Your task to perform on an android device: Go to wifi settings Image 0: 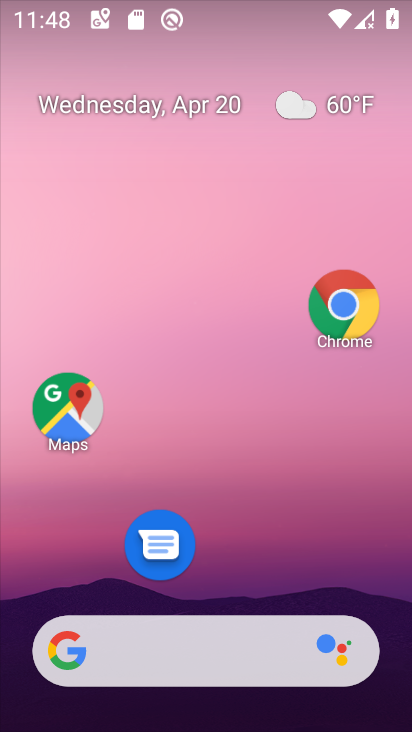
Step 0: drag from (192, 639) to (248, 4)
Your task to perform on an android device: Go to wifi settings Image 1: 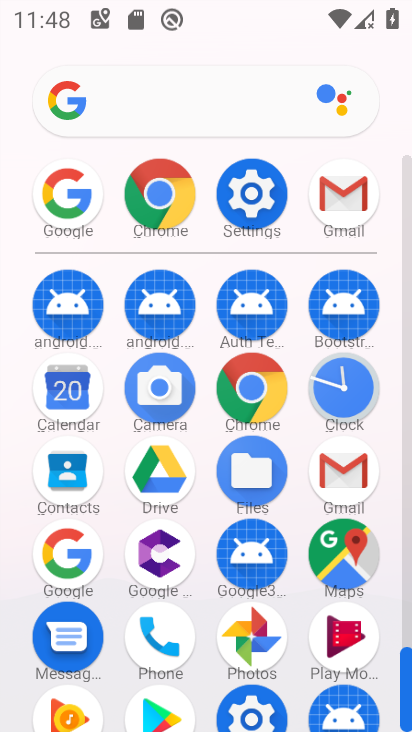
Step 1: click (250, 198)
Your task to perform on an android device: Go to wifi settings Image 2: 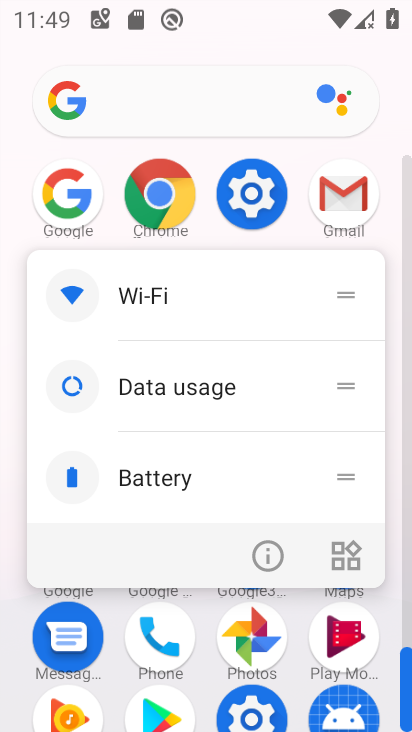
Step 2: click (246, 207)
Your task to perform on an android device: Go to wifi settings Image 3: 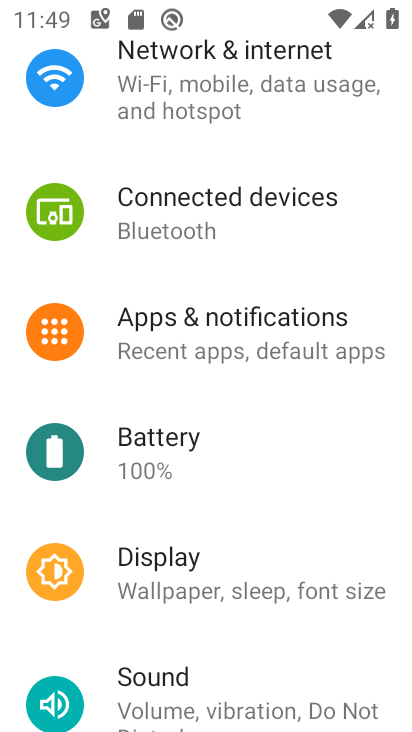
Step 3: drag from (233, 261) to (161, 657)
Your task to perform on an android device: Go to wifi settings Image 4: 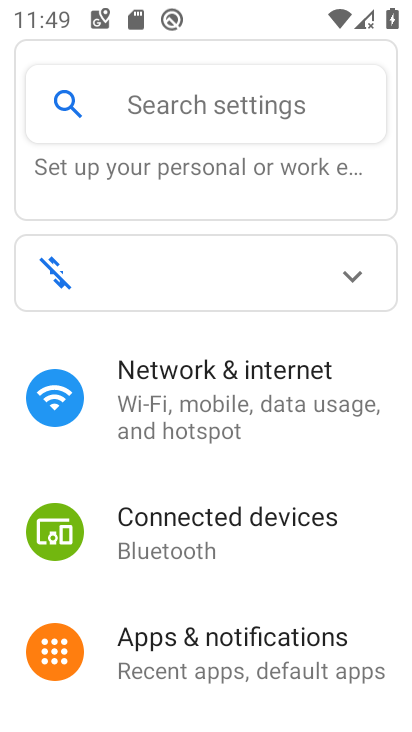
Step 4: click (238, 408)
Your task to perform on an android device: Go to wifi settings Image 5: 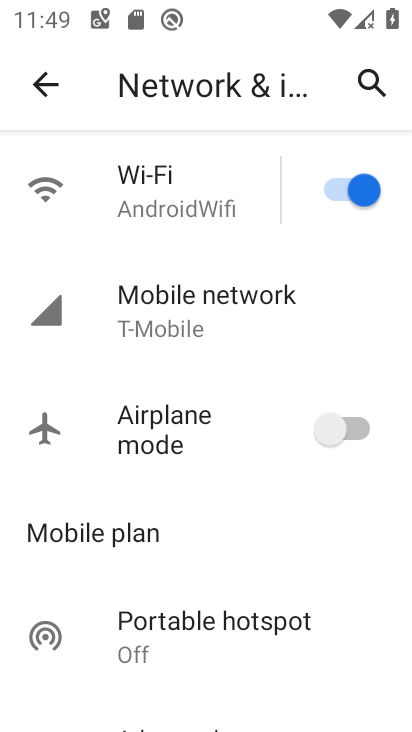
Step 5: click (169, 197)
Your task to perform on an android device: Go to wifi settings Image 6: 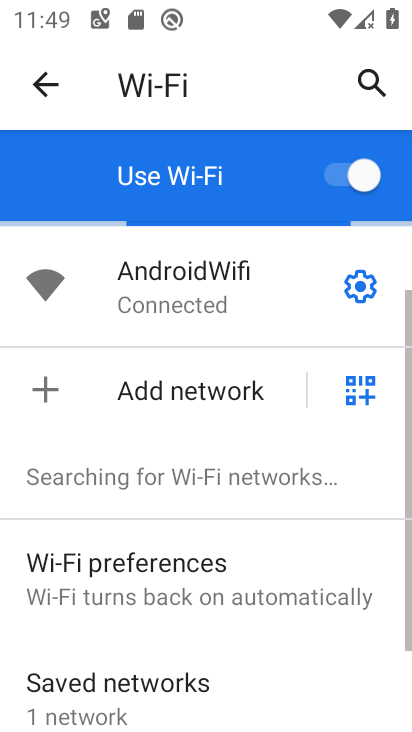
Step 6: task complete